Your task to perform on an android device: turn pop-ups off in chrome Image 0: 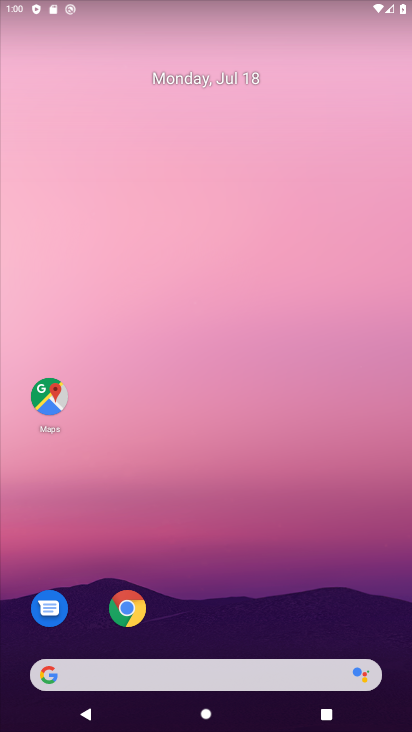
Step 0: drag from (291, 620) to (232, 5)
Your task to perform on an android device: turn pop-ups off in chrome Image 1: 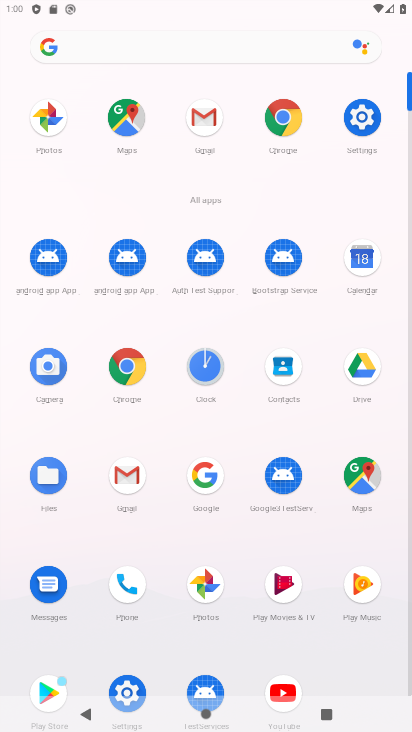
Step 1: click (290, 119)
Your task to perform on an android device: turn pop-ups off in chrome Image 2: 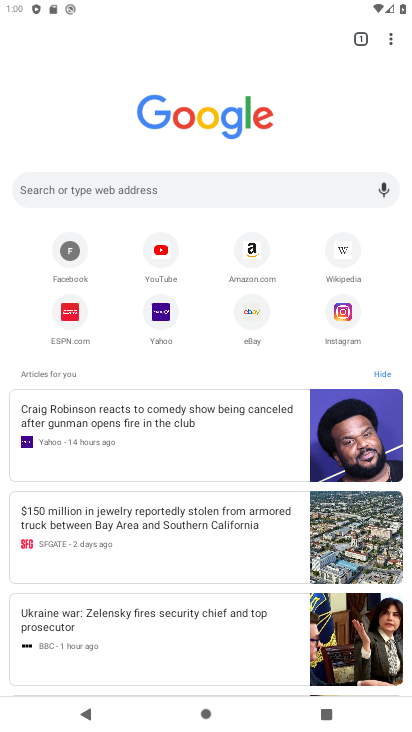
Step 2: click (397, 37)
Your task to perform on an android device: turn pop-ups off in chrome Image 3: 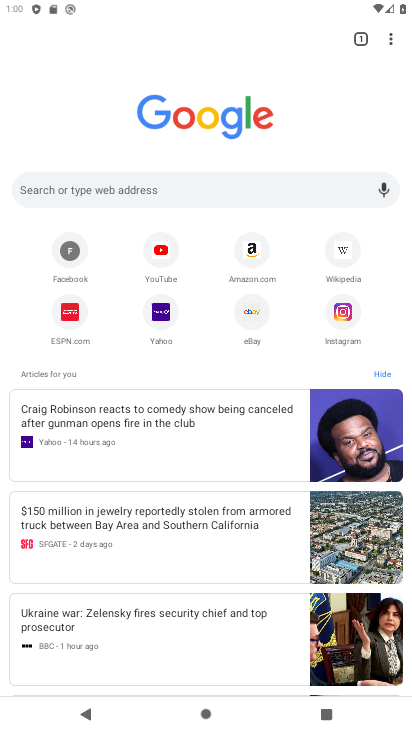
Step 3: click (392, 38)
Your task to perform on an android device: turn pop-ups off in chrome Image 4: 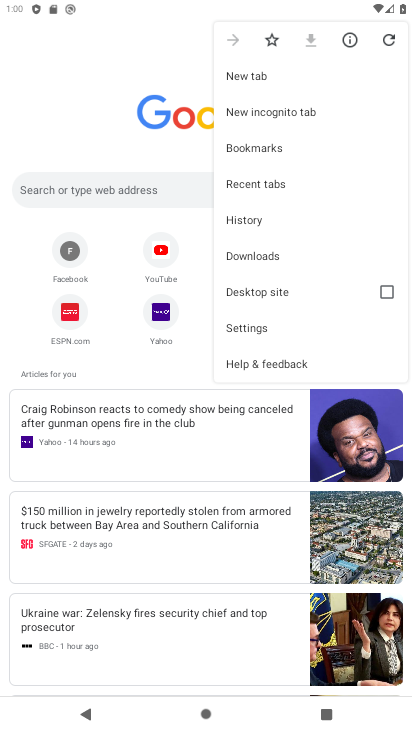
Step 4: click (260, 330)
Your task to perform on an android device: turn pop-ups off in chrome Image 5: 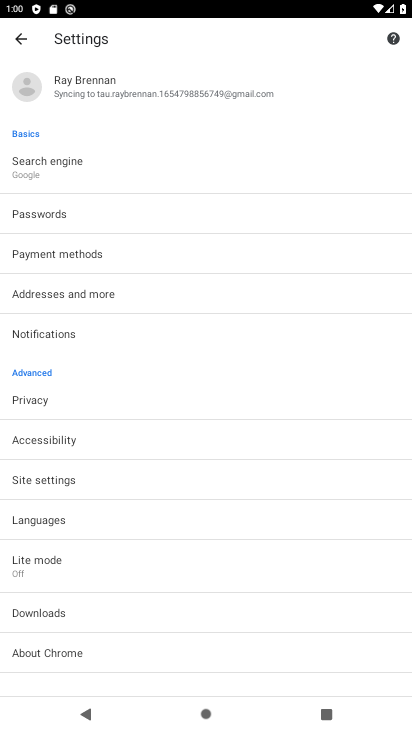
Step 5: click (91, 485)
Your task to perform on an android device: turn pop-ups off in chrome Image 6: 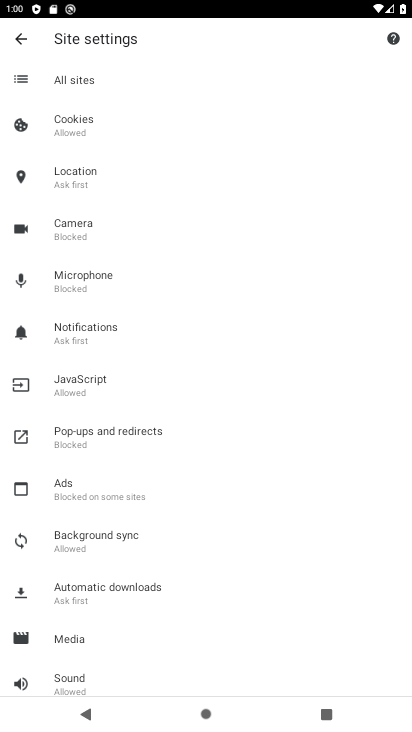
Step 6: click (130, 437)
Your task to perform on an android device: turn pop-ups off in chrome Image 7: 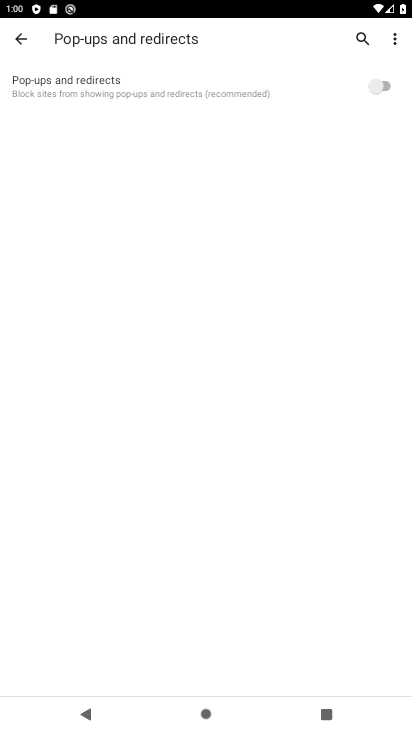
Step 7: task complete